Your task to perform on an android device: all mails in gmail Image 0: 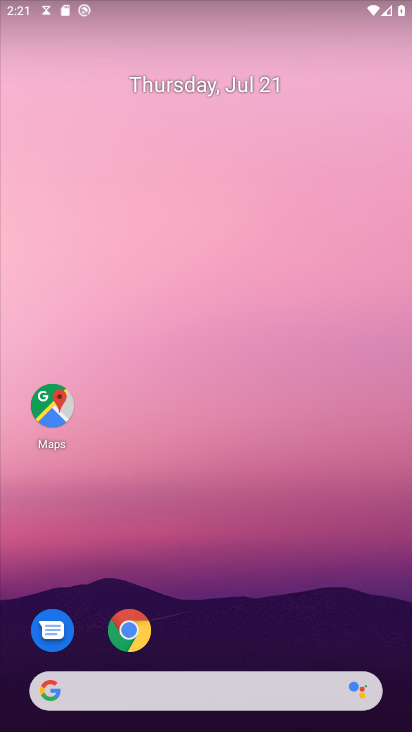
Step 0: click (223, 100)
Your task to perform on an android device: all mails in gmail Image 1: 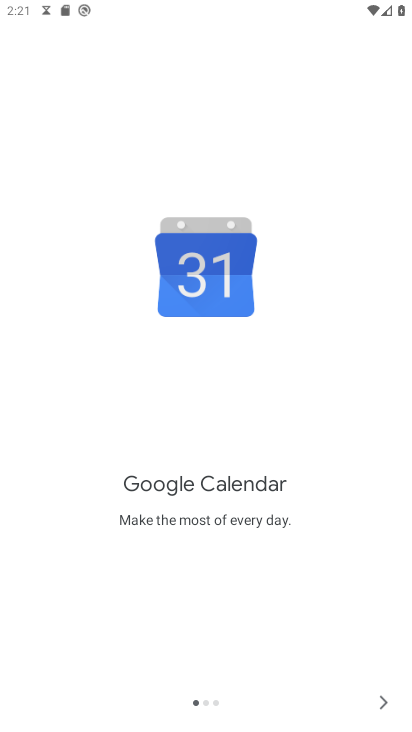
Step 1: press home button
Your task to perform on an android device: all mails in gmail Image 2: 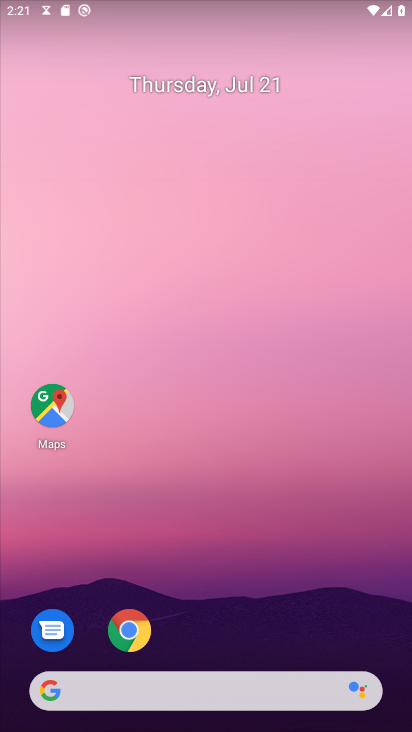
Step 2: drag from (186, 593) to (149, 159)
Your task to perform on an android device: all mails in gmail Image 3: 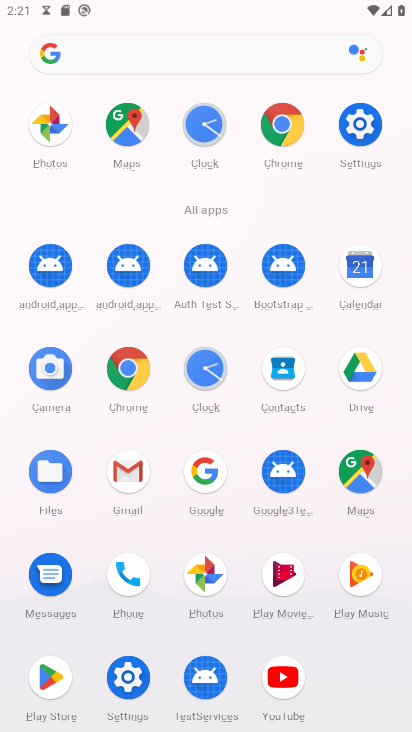
Step 3: click (122, 491)
Your task to perform on an android device: all mails in gmail Image 4: 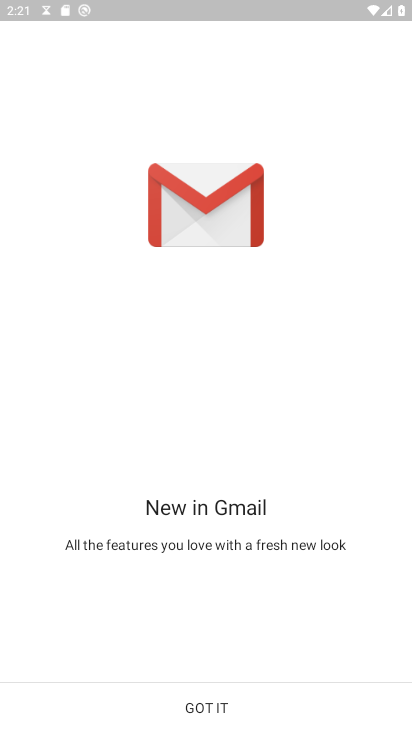
Step 4: click (214, 705)
Your task to perform on an android device: all mails in gmail Image 5: 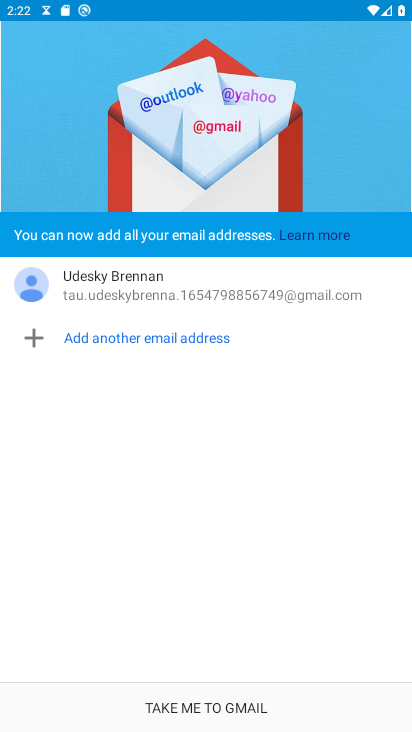
Step 5: click (214, 705)
Your task to perform on an android device: all mails in gmail Image 6: 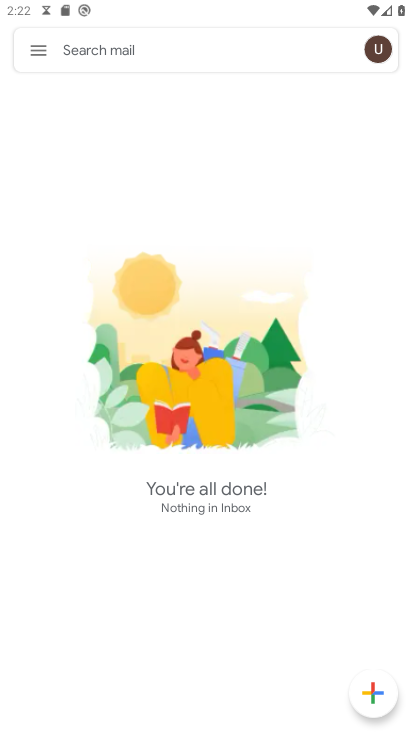
Step 6: click (34, 45)
Your task to perform on an android device: all mails in gmail Image 7: 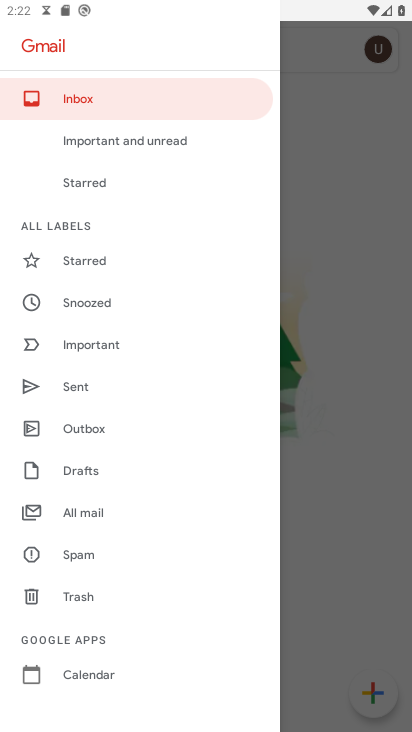
Step 7: click (83, 518)
Your task to perform on an android device: all mails in gmail Image 8: 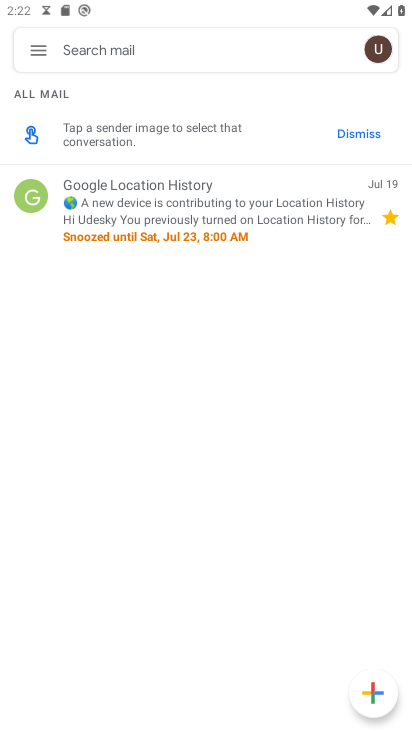
Step 8: task complete